Your task to perform on an android device: open app "Google Home" (install if not already installed) Image 0: 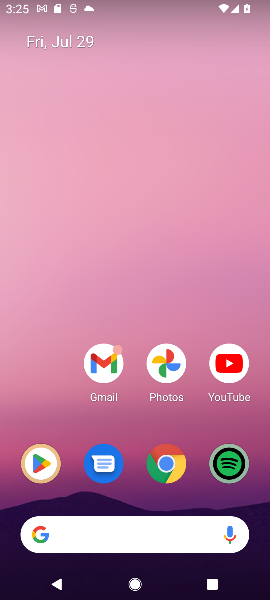
Step 0: drag from (84, 544) to (140, 155)
Your task to perform on an android device: open app "Google Home" (install if not already installed) Image 1: 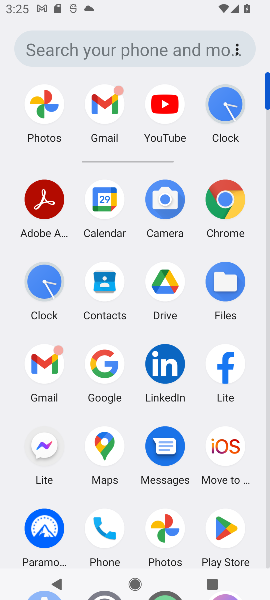
Step 1: click (227, 529)
Your task to perform on an android device: open app "Google Home" (install if not already installed) Image 2: 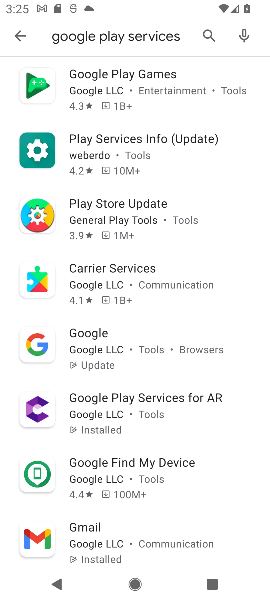
Step 2: click (206, 38)
Your task to perform on an android device: open app "Google Home" (install if not already installed) Image 3: 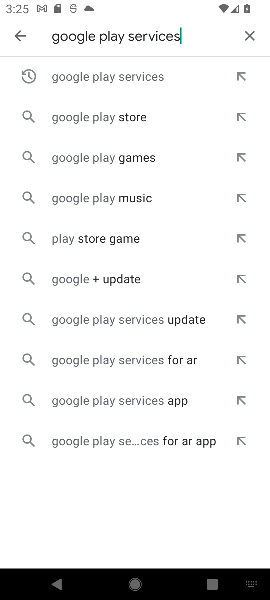
Step 3: click (249, 32)
Your task to perform on an android device: open app "Google Home" (install if not already installed) Image 4: 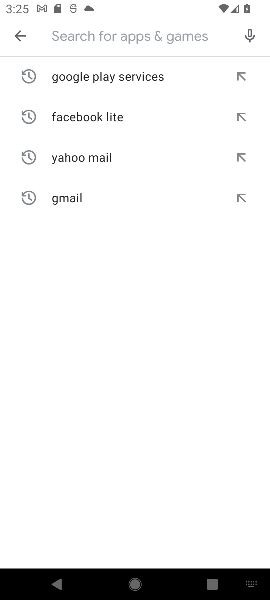
Step 4: type "Google Home"
Your task to perform on an android device: open app "Google Home" (install if not already installed) Image 5: 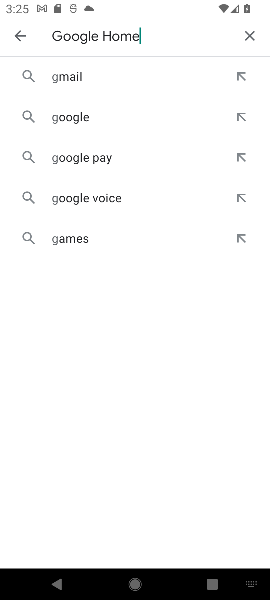
Step 5: type ""
Your task to perform on an android device: open app "Google Home" (install if not already installed) Image 6: 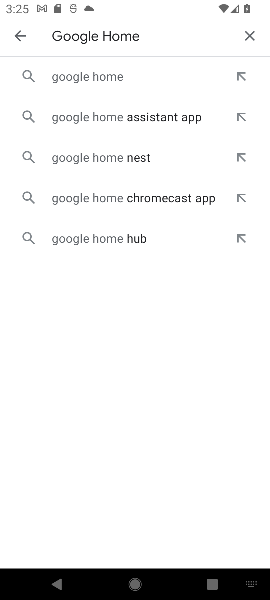
Step 6: click (90, 76)
Your task to perform on an android device: open app "Google Home" (install if not already installed) Image 7: 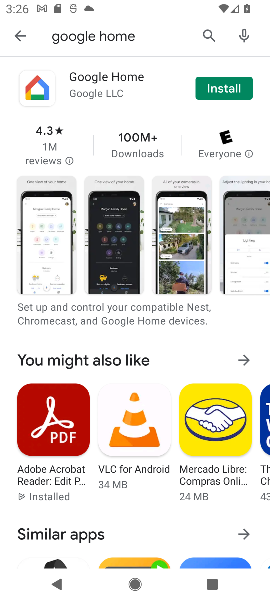
Step 7: click (220, 90)
Your task to perform on an android device: open app "Google Home" (install if not already installed) Image 8: 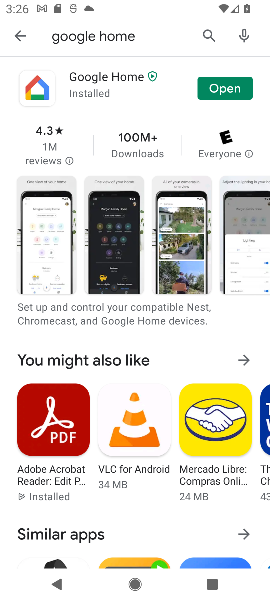
Step 8: click (220, 90)
Your task to perform on an android device: open app "Google Home" (install if not already installed) Image 9: 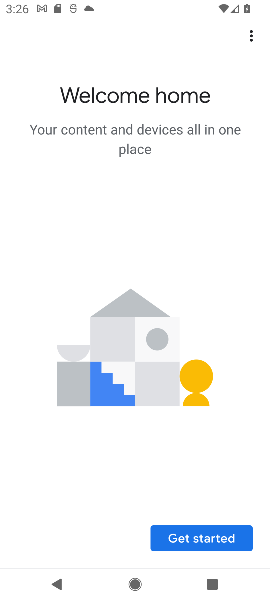
Step 9: task complete